Your task to perform on an android device: Is it going to rain this weekend? Image 0: 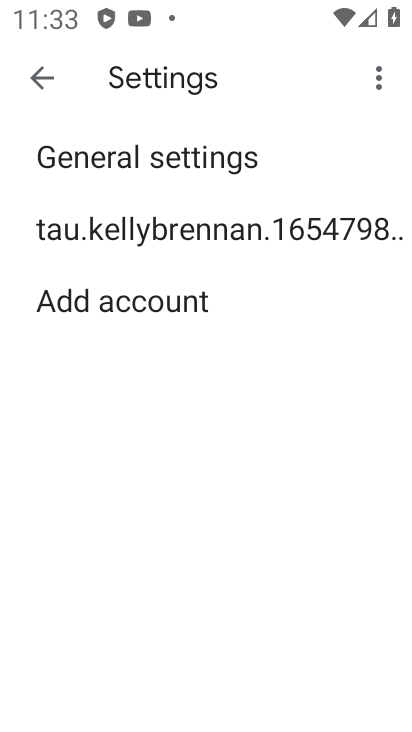
Step 0: press home button
Your task to perform on an android device: Is it going to rain this weekend? Image 1: 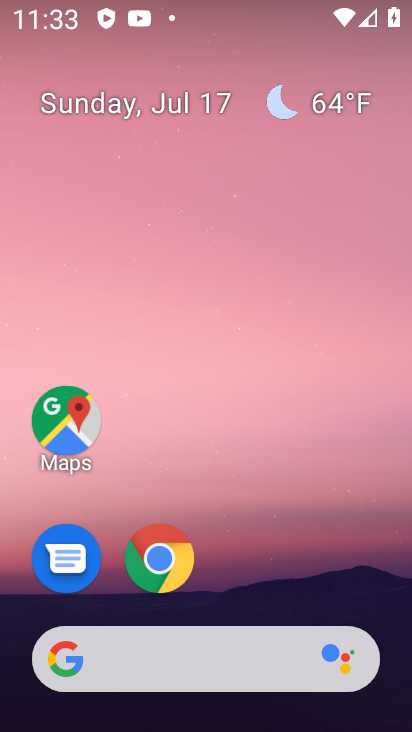
Step 1: click (240, 661)
Your task to perform on an android device: Is it going to rain this weekend? Image 2: 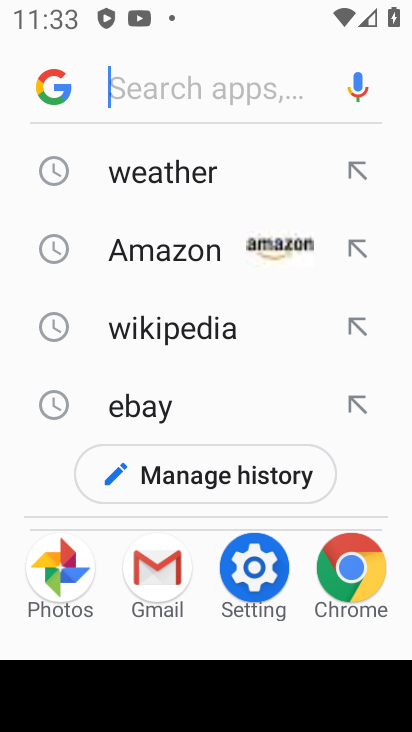
Step 2: click (270, 167)
Your task to perform on an android device: Is it going to rain this weekend? Image 3: 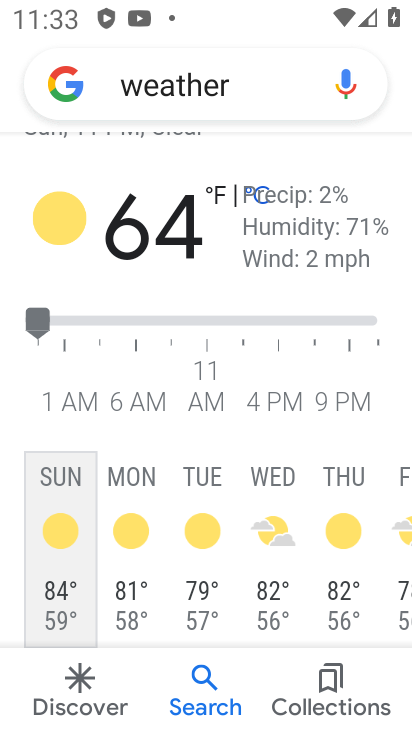
Step 3: drag from (363, 510) to (44, 498)
Your task to perform on an android device: Is it going to rain this weekend? Image 4: 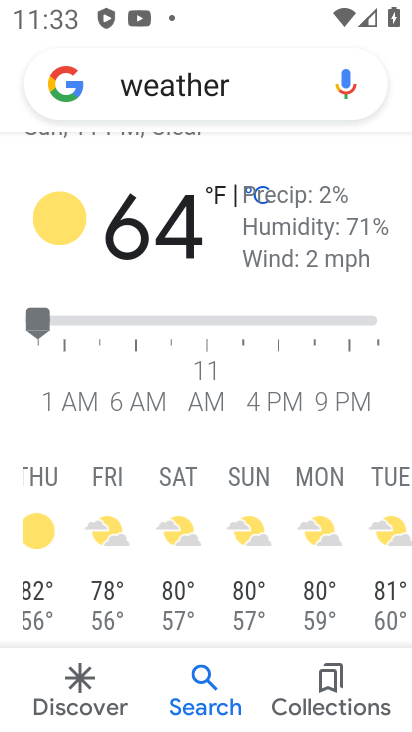
Step 4: click (172, 486)
Your task to perform on an android device: Is it going to rain this weekend? Image 5: 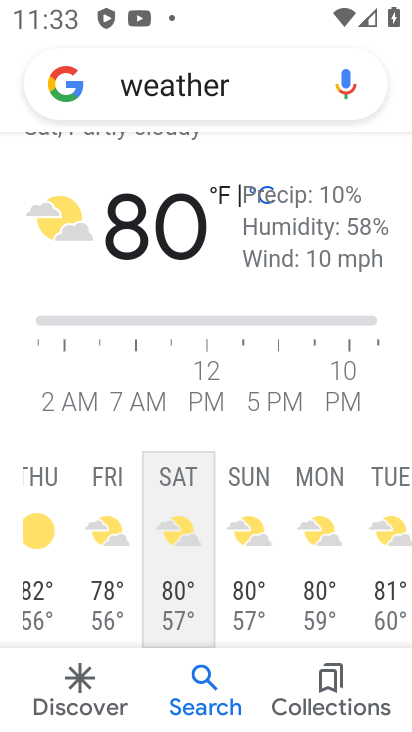
Step 5: task complete